Your task to perform on an android device: Is it going to rain tomorrow? Image 0: 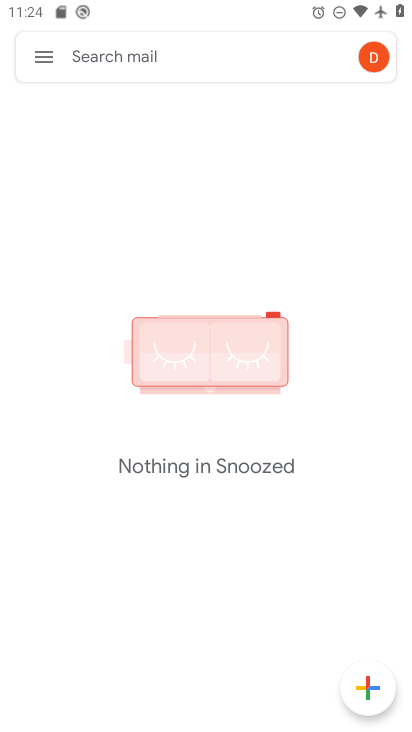
Step 0: press home button
Your task to perform on an android device: Is it going to rain tomorrow? Image 1: 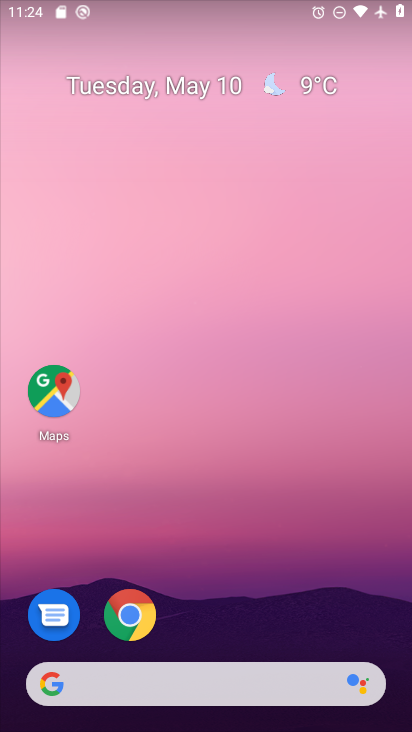
Step 1: click (299, 80)
Your task to perform on an android device: Is it going to rain tomorrow? Image 2: 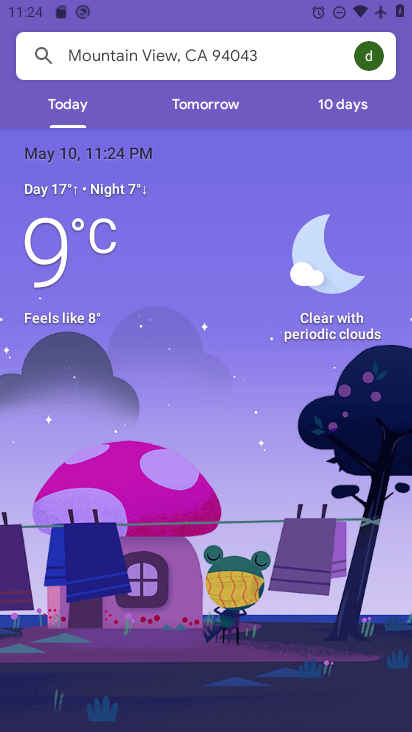
Step 2: click (195, 92)
Your task to perform on an android device: Is it going to rain tomorrow? Image 3: 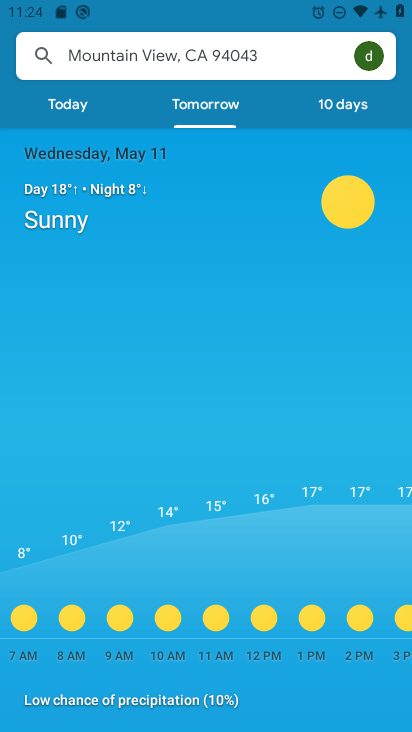
Step 3: task complete